Your task to perform on an android device: turn off location Image 0: 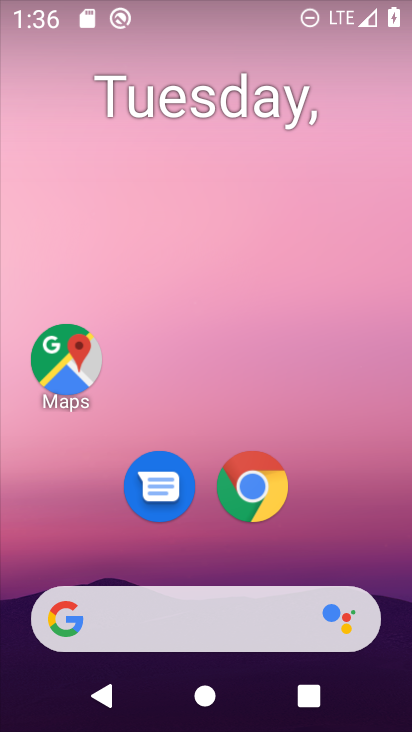
Step 0: drag from (210, 588) to (244, 219)
Your task to perform on an android device: turn off location Image 1: 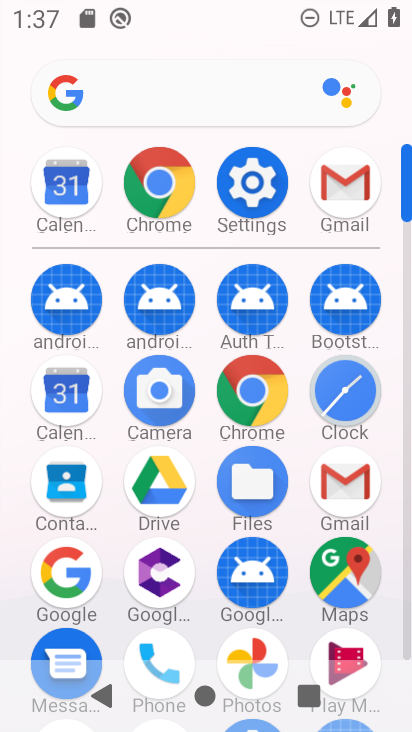
Step 1: drag from (202, 255) to (202, 26)
Your task to perform on an android device: turn off location Image 2: 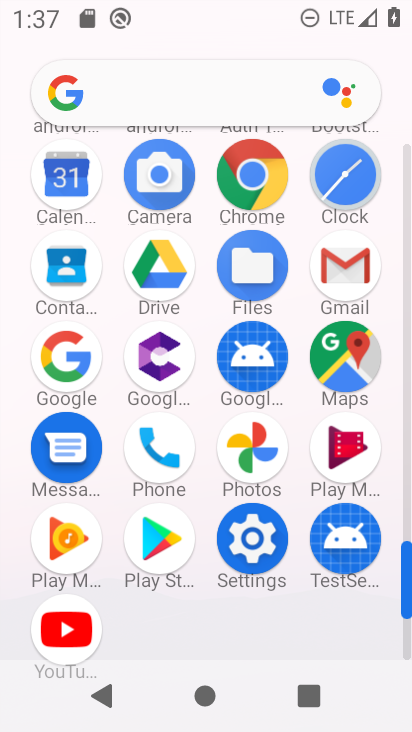
Step 2: click (271, 545)
Your task to perform on an android device: turn off location Image 3: 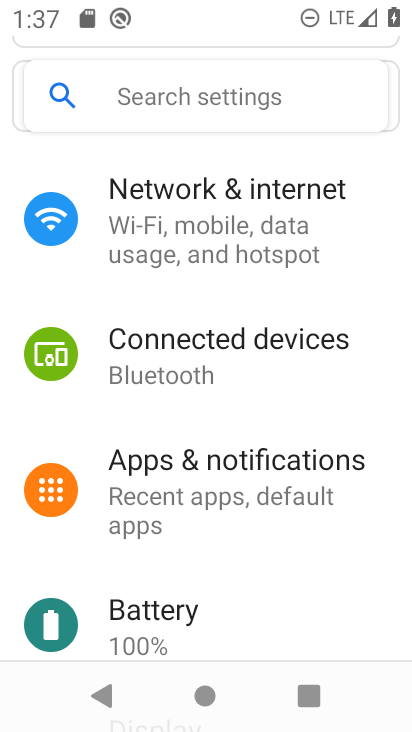
Step 3: drag from (171, 564) to (195, 214)
Your task to perform on an android device: turn off location Image 4: 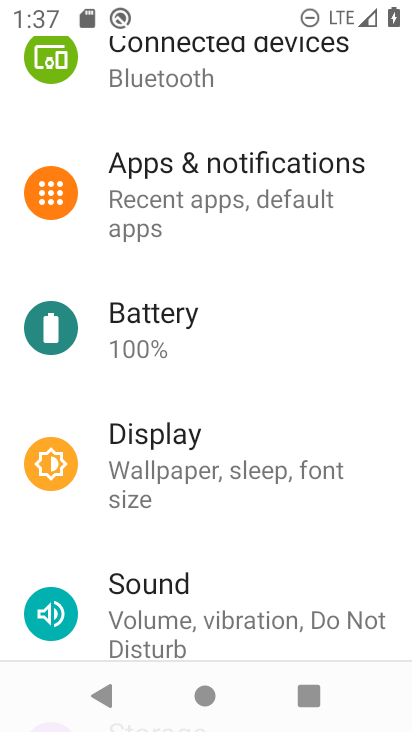
Step 4: drag from (163, 544) to (163, 265)
Your task to perform on an android device: turn off location Image 5: 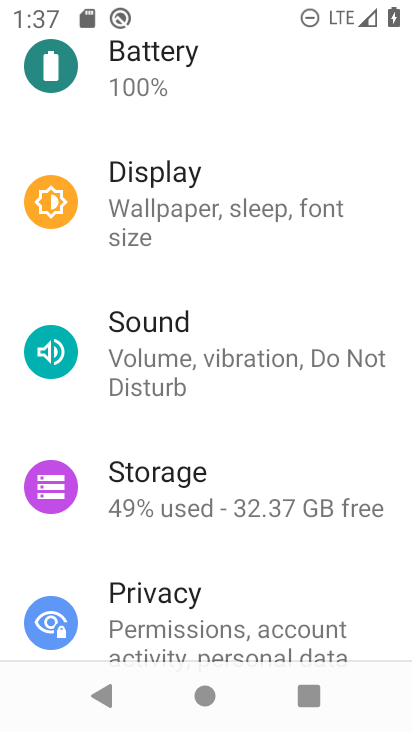
Step 5: drag from (181, 593) to (206, 386)
Your task to perform on an android device: turn off location Image 6: 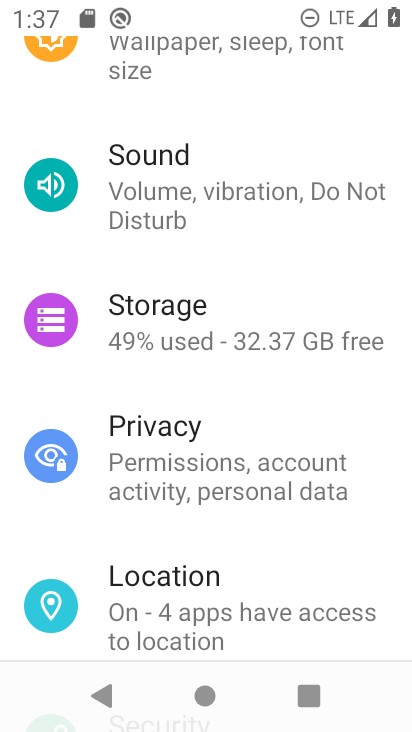
Step 6: click (192, 616)
Your task to perform on an android device: turn off location Image 7: 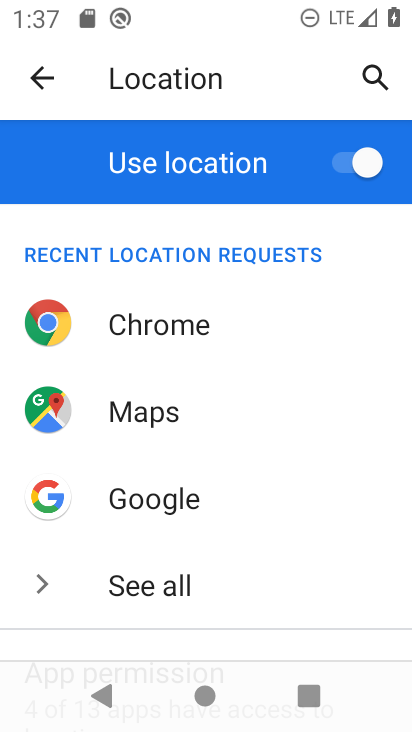
Step 7: click (375, 174)
Your task to perform on an android device: turn off location Image 8: 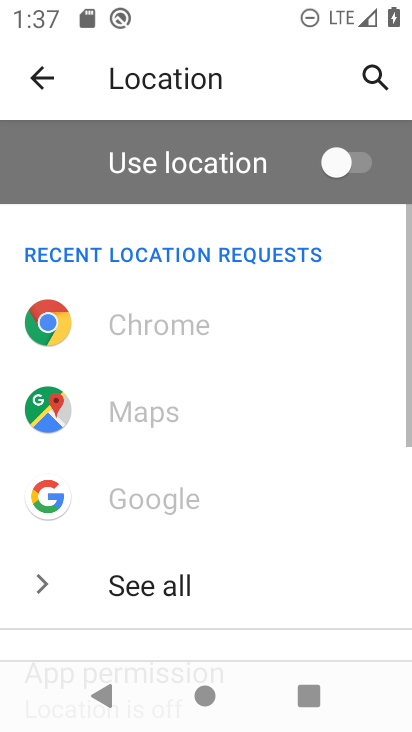
Step 8: task complete